Your task to perform on an android device: Open settings on Google Maps Image 0: 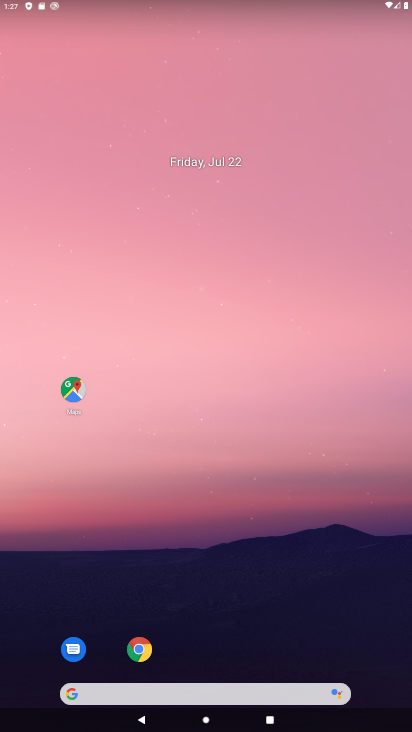
Step 0: click (81, 395)
Your task to perform on an android device: Open settings on Google Maps Image 1: 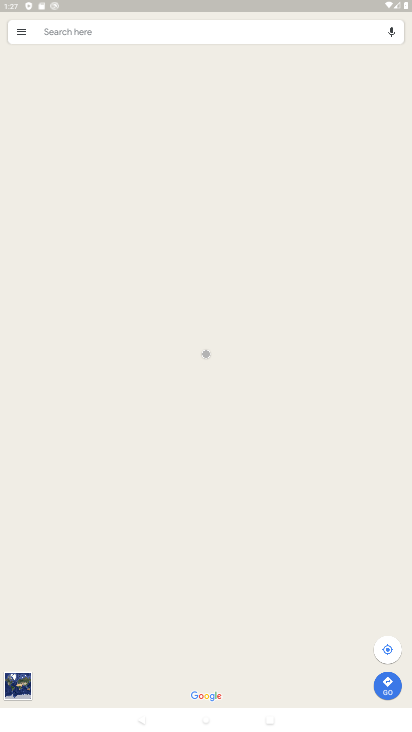
Step 1: click (21, 31)
Your task to perform on an android device: Open settings on Google Maps Image 2: 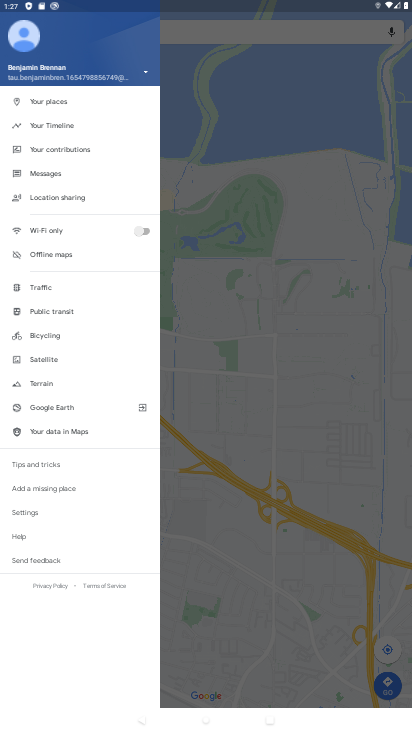
Step 2: click (26, 515)
Your task to perform on an android device: Open settings on Google Maps Image 3: 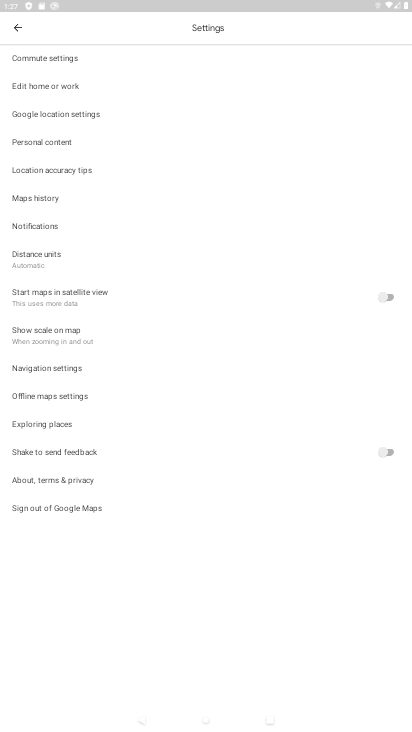
Step 3: task complete